Your task to perform on an android device: Show me popular games on the Play Store Image 0: 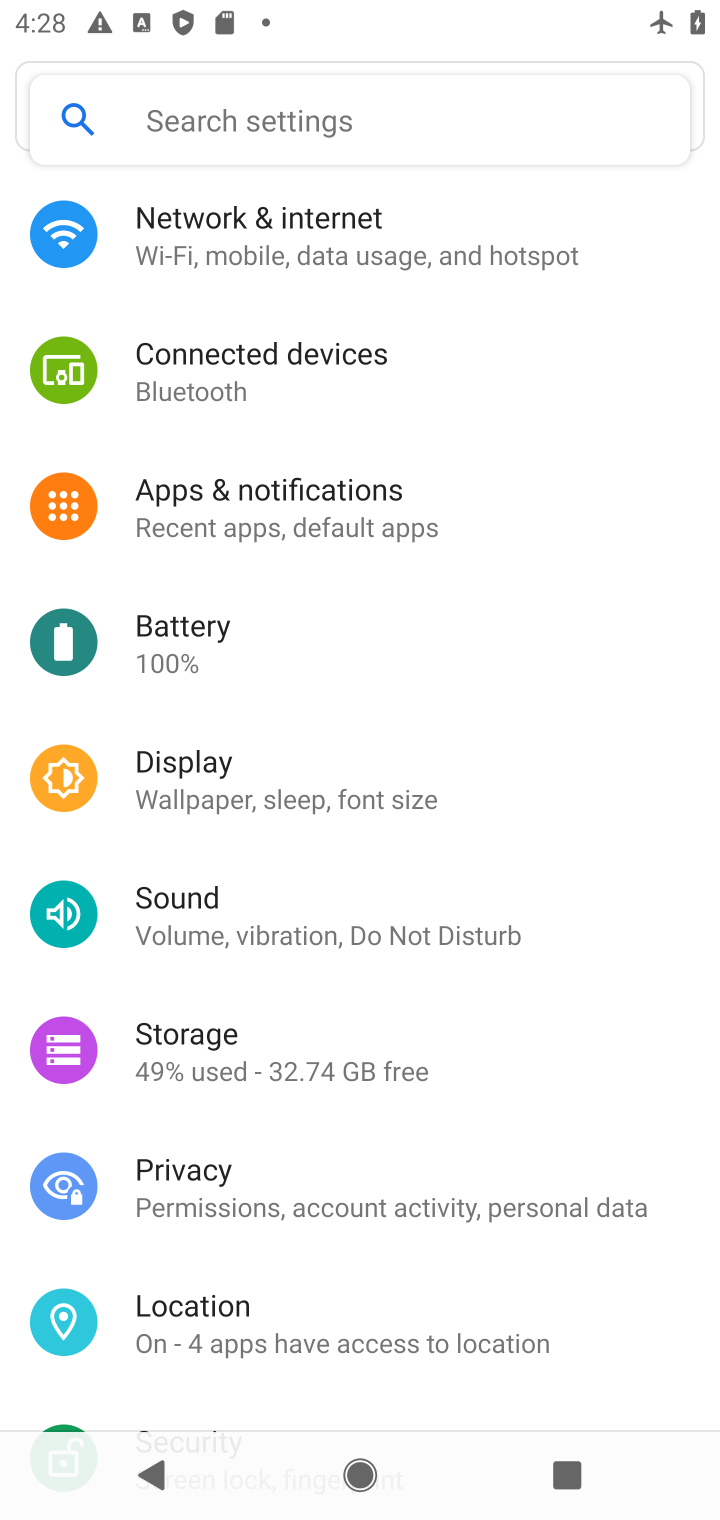
Step 0: press home button
Your task to perform on an android device: Show me popular games on the Play Store Image 1: 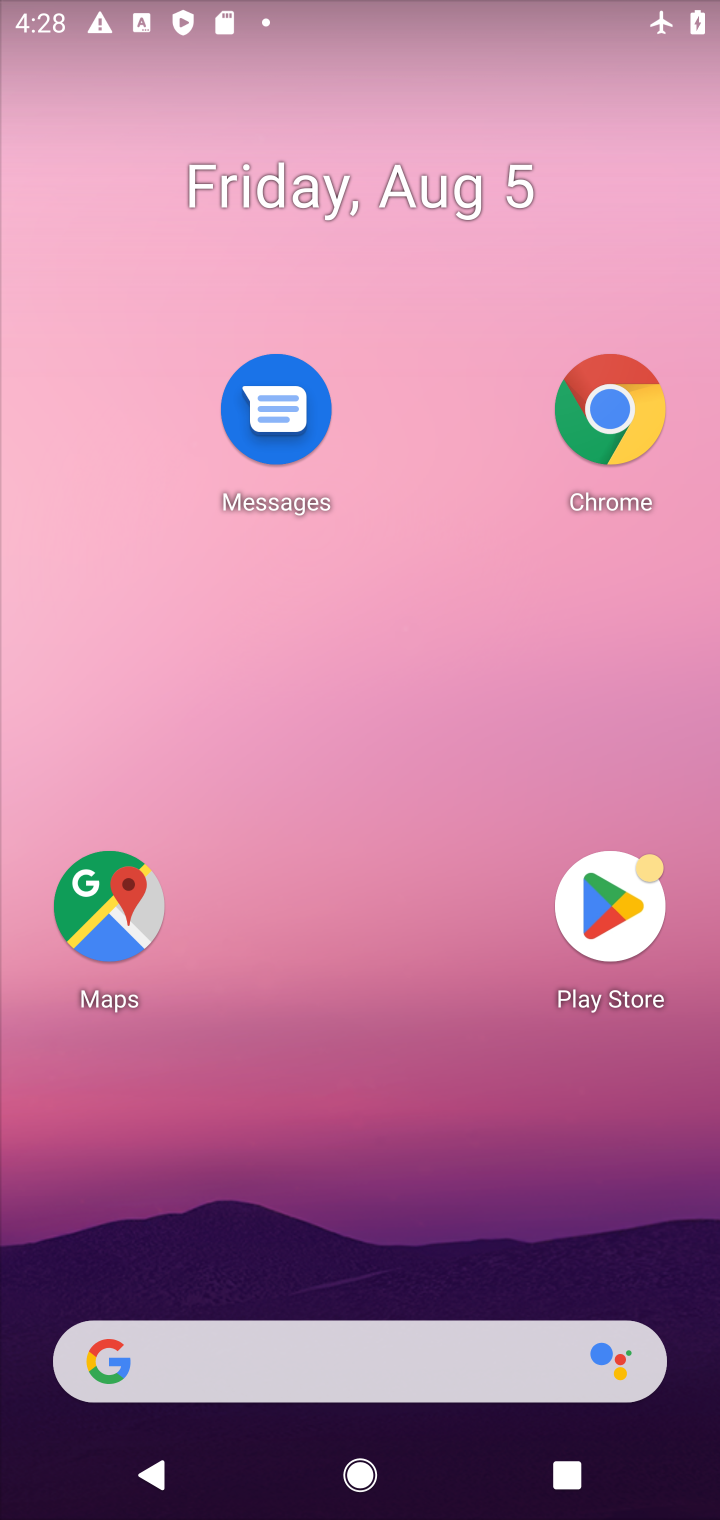
Step 1: drag from (367, 600) to (367, 389)
Your task to perform on an android device: Show me popular games on the Play Store Image 2: 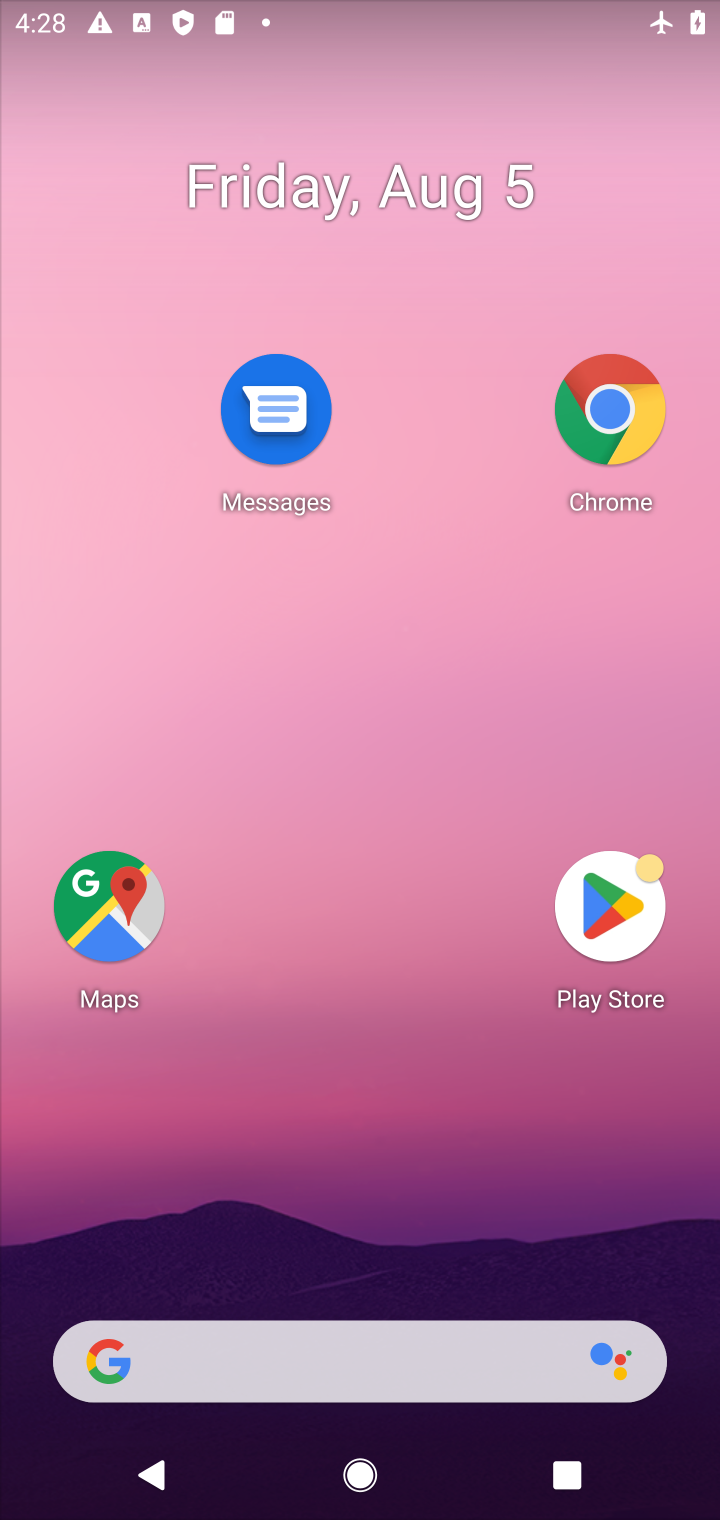
Step 2: click (602, 871)
Your task to perform on an android device: Show me popular games on the Play Store Image 3: 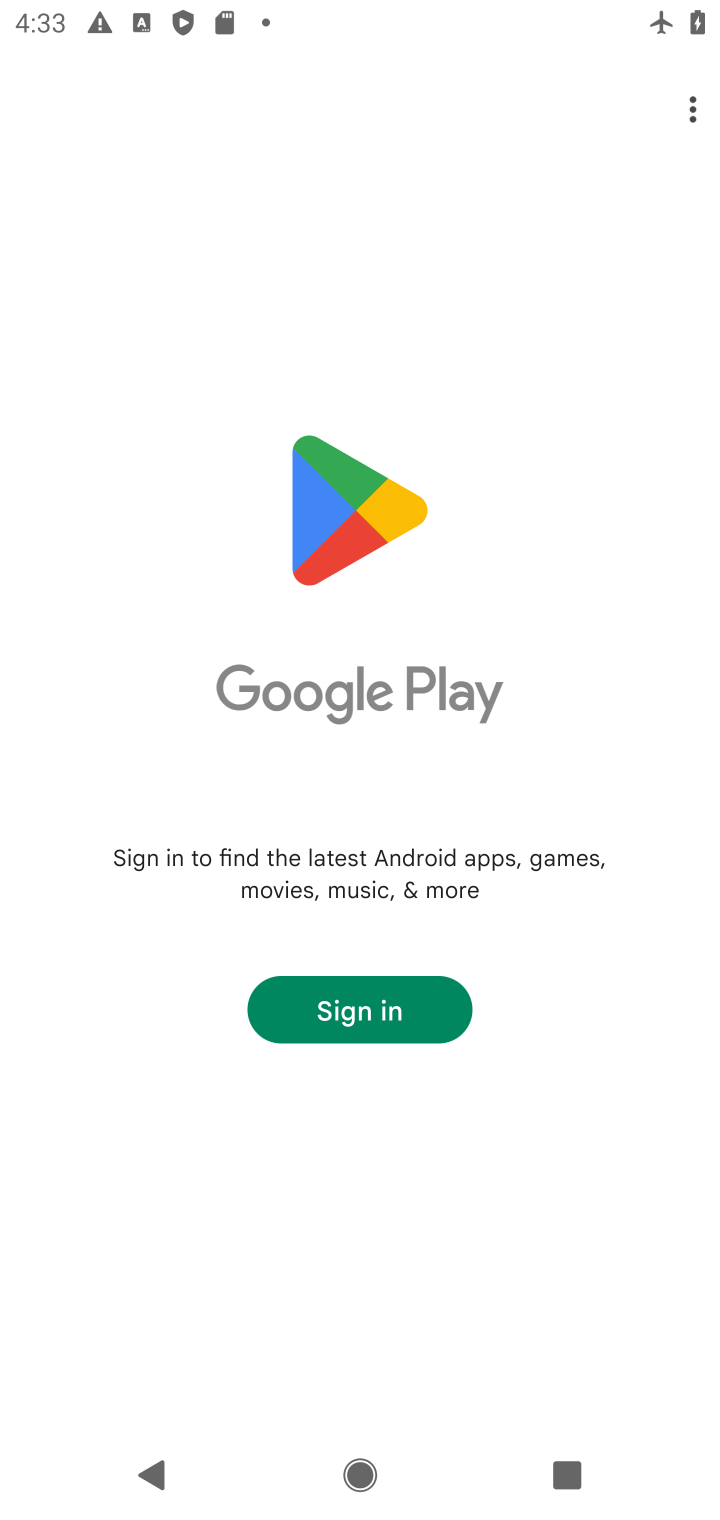
Step 3: task complete